Your task to perform on an android device: remove spam from my inbox in the gmail app Image 0: 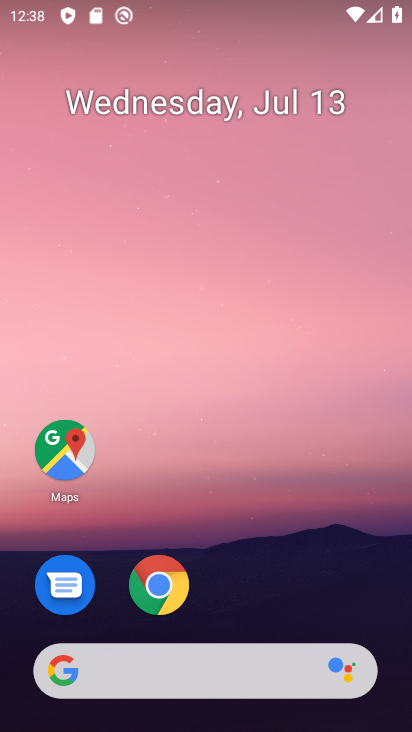
Step 0: drag from (140, 669) to (185, 60)
Your task to perform on an android device: remove spam from my inbox in the gmail app Image 1: 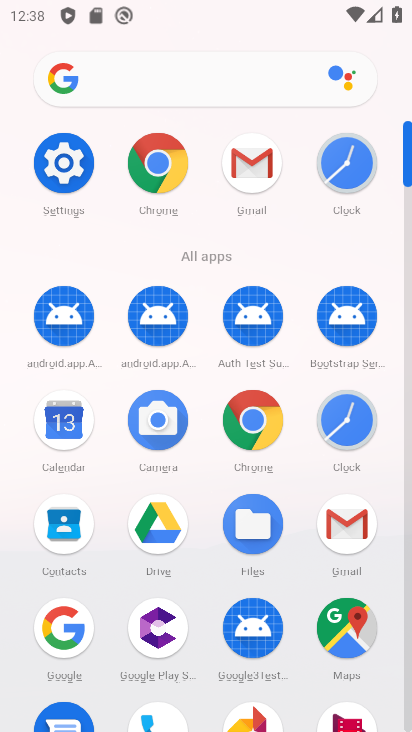
Step 1: click (242, 157)
Your task to perform on an android device: remove spam from my inbox in the gmail app Image 2: 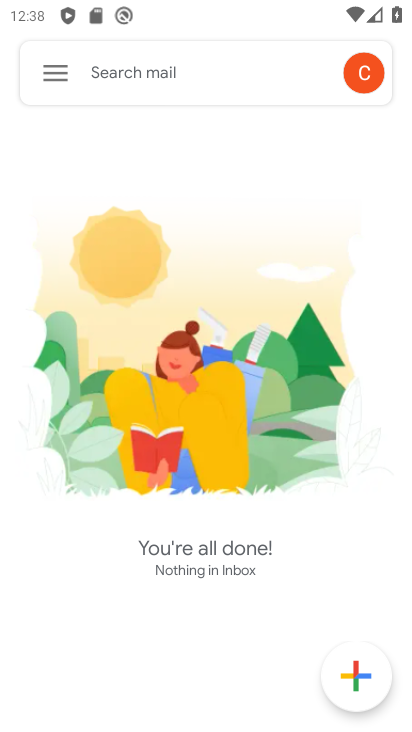
Step 2: click (59, 78)
Your task to perform on an android device: remove spam from my inbox in the gmail app Image 3: 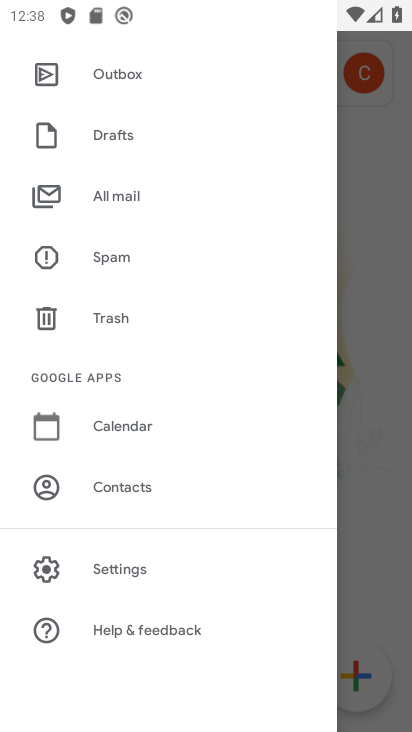
Step 3: click (99, 258)
Your task to perform on an android device: remove spam from my inbox in the gmail app Image 4: 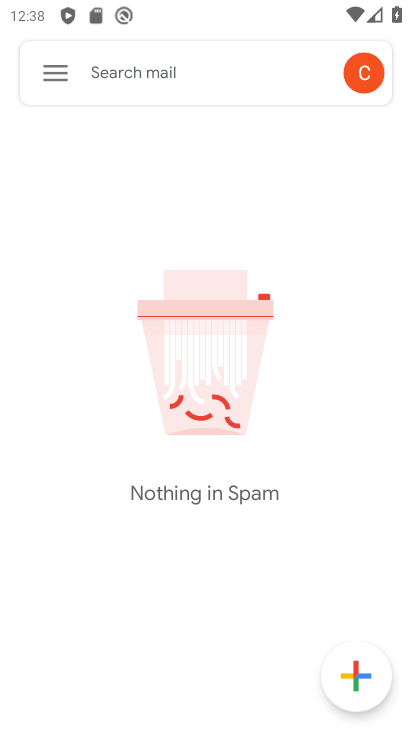
Step 4: task complete